Your task to perform on an android device: Open the phone app and click the voicemail tab. Image 0: 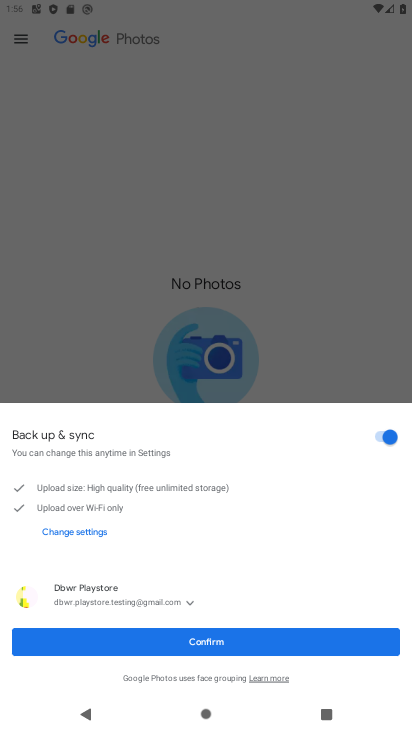
Step 0: click (218, 646)
Your task to perform on an android device: Open the phone app and click the voicemail tab. Image 1: 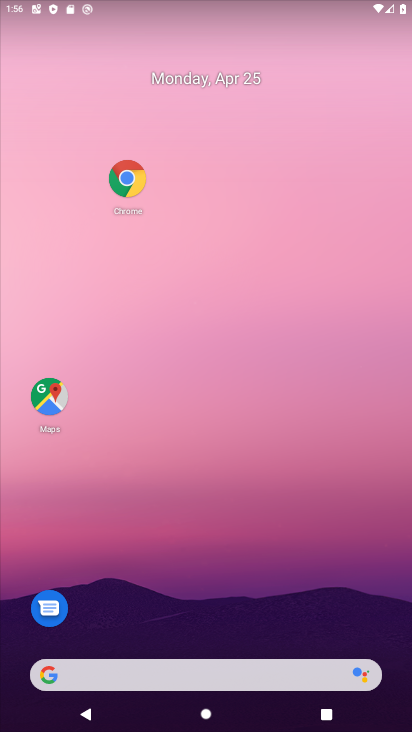
Step 1: drag from (163, 339) to (161, 147)
Your task to perform on an android device: Open the phone app and click the voicemail tab. Image 2: 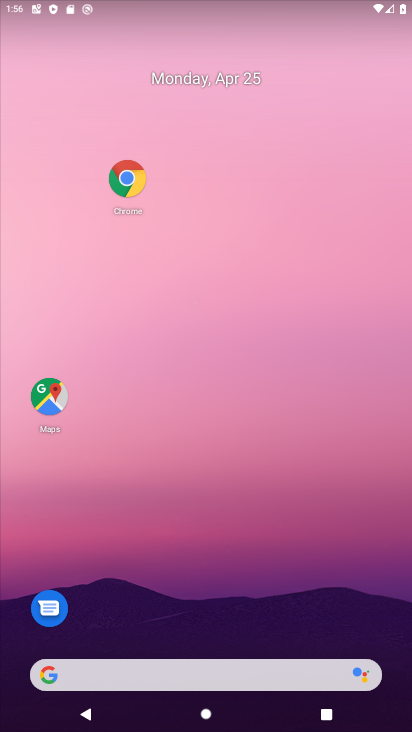
Step 2: drag from (202, 636) to (233, 222)
Your task to perform on an android device: Open the phone app and click the voicemail tab. Image 3: 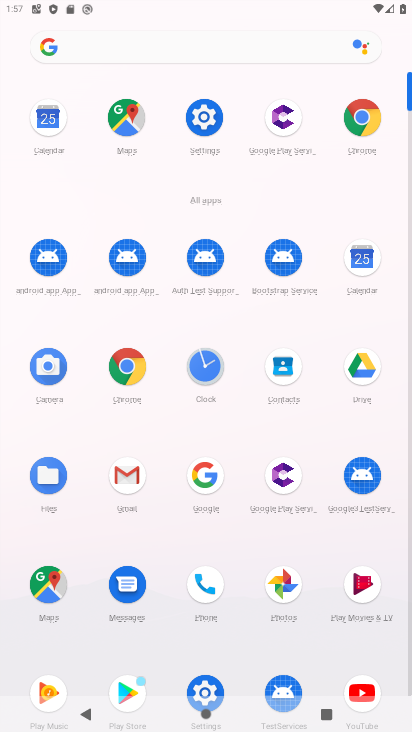
Step 3: drag from (211, 608) to (222, 404)
Your task to perform on an android device: Open the phone app and click the voicemail tab. Image 4: 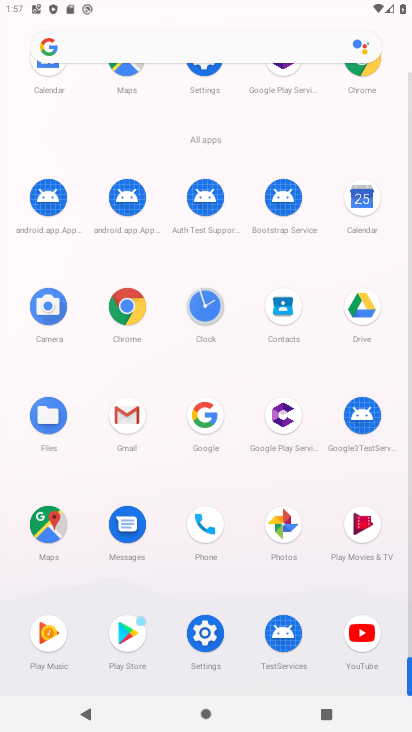
Step 4: click (201, 516)
Your task to perform on an android device: Open the phone app and click the voicemail tab. Image 5: 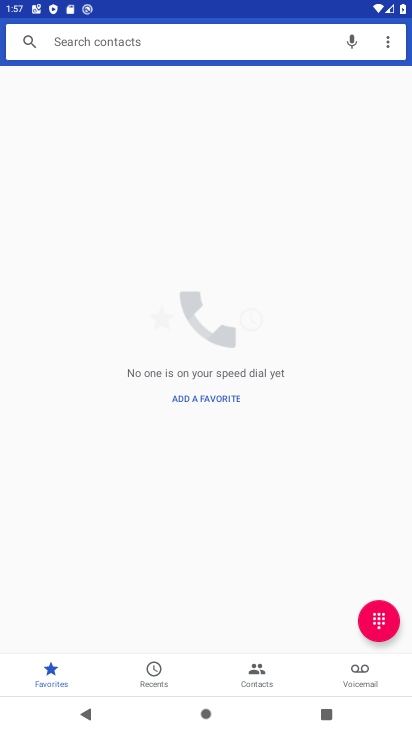
Step 5: click (363, 670)
Your task to perform on an android device: Open the phone app and click the voicemail tab. Image 6: 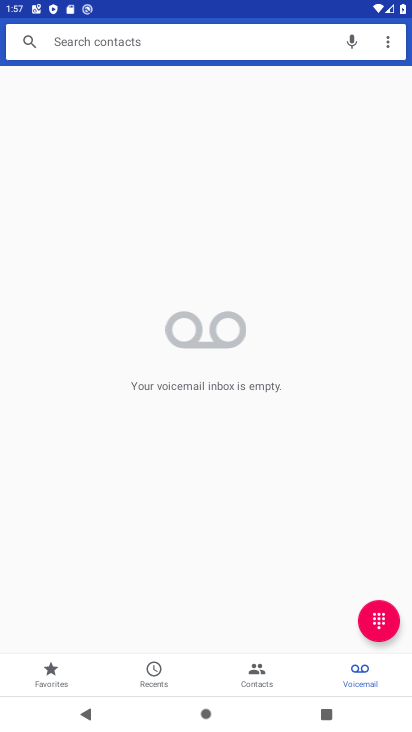
Step 6: task complete